Your task to perform on an android device: toggle show notifications on the lock screen Image 0: 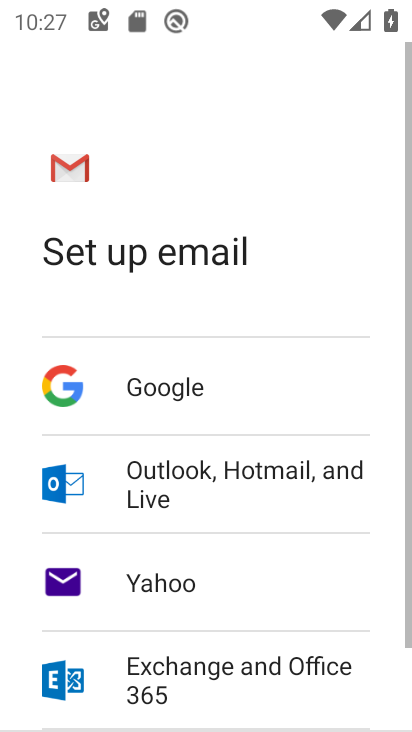
Step 0: press back button
Your task to perform on an android device: toggle show notifications on the lock screen Image 1: 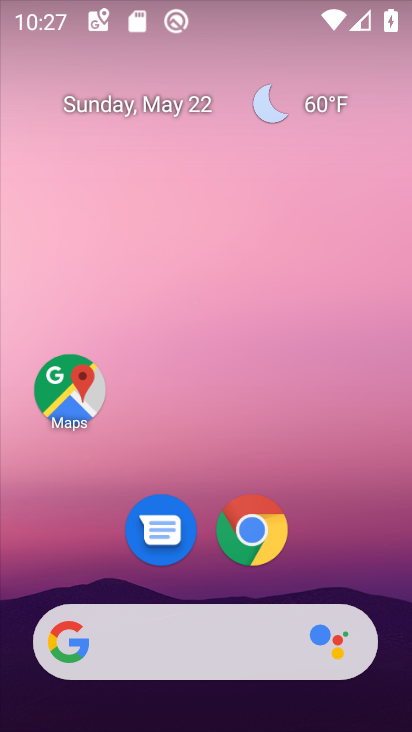
Step 1: drag from (367, 383) to (319, 75)
Your task to perform on an android device: toggle show notifications on the lock screen Image 2: 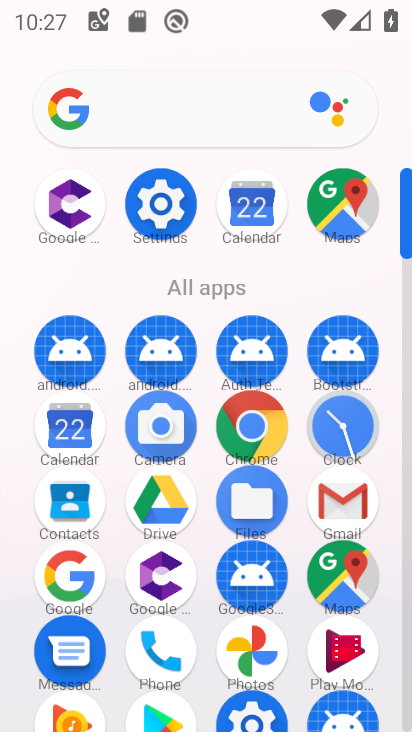
Step 2: click (163, 193)
Your task to perform on an android device: toggle show notifications on the lock screen Image 3: 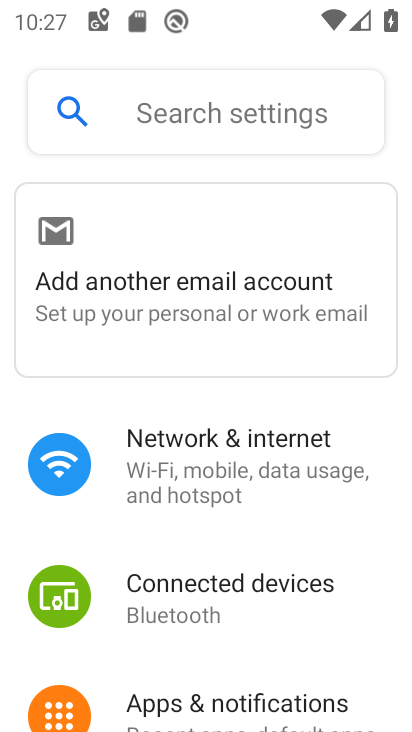
Step 3: drag from (292, 668) to (295, 438)
Your task to perform on an android device: toggle show notifications on the lock screen Image 4: 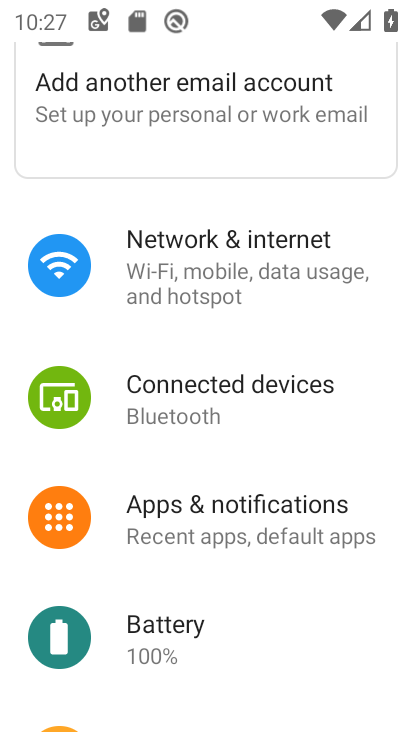
Step 4: click (211, 642)
Your task to perform on an android device: toggle show notifications on the lock screen Image 5: 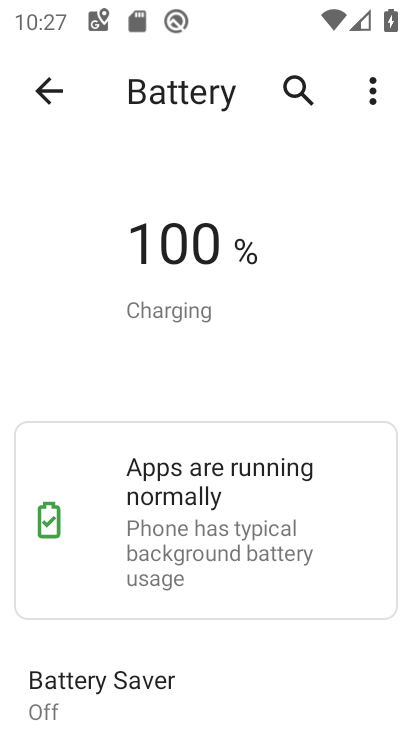
Step 5: click (28, 101)
Your task to perform on an android device: toggle show notifications on the lock screen Image 6: 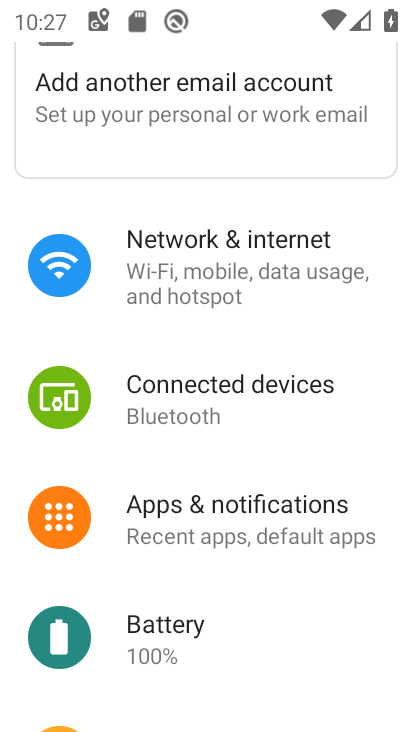
Step 6: click (235, 515)
Your task to perform on an android device: toggle show notifications on the lock screen Image 7: 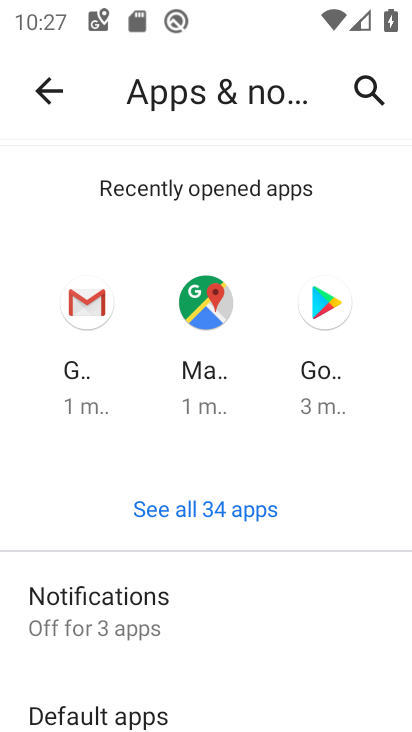
Step 7: drag from (243, 664) to (234, 296)
Your task to perform on an android device: toggle show notifications on the lock screen Image 8: 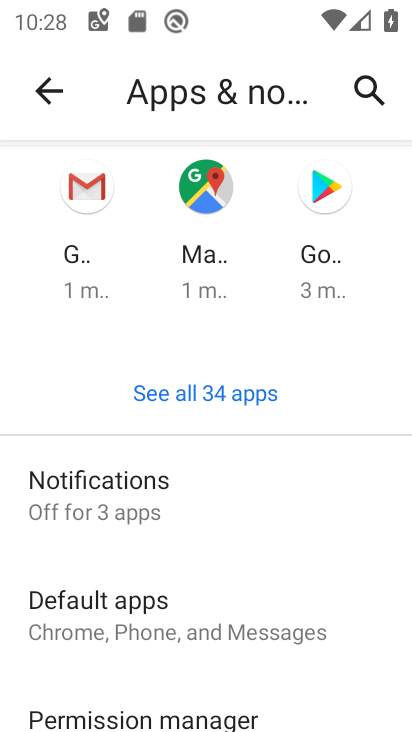
Step 8: click (103, 495)
Your task to perform on an android device: toggle show notifications on the lock screen Image 9: 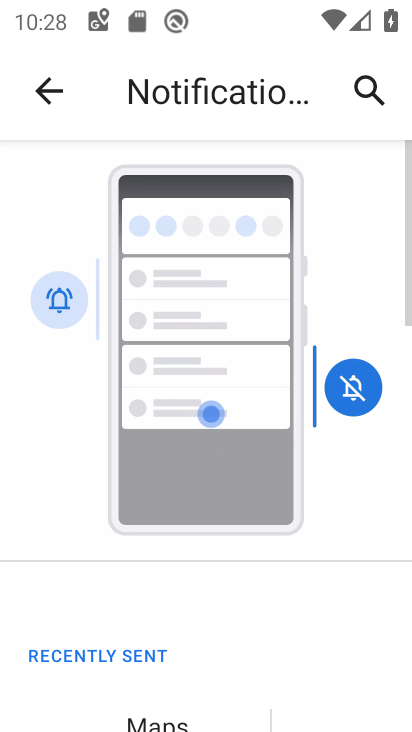
Step 9: drag from (334, 560) to (342, 207)
Your task to perform on an android device: toggle show notifications on the lock screen Image 10: 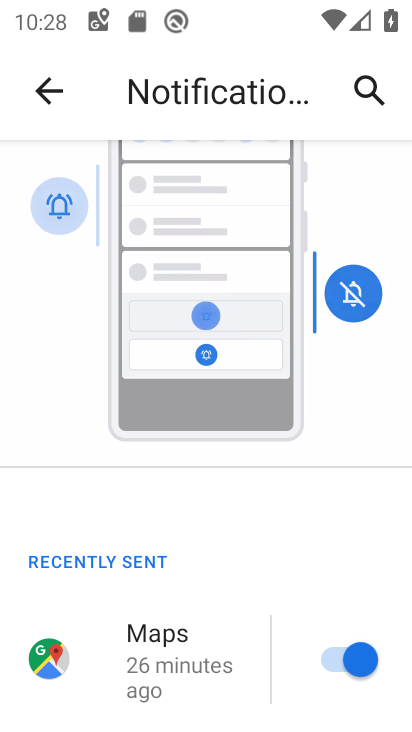
Step 10: drag from (249, 645) to (259, 324)
Your task to perform on an android device: toggle show notifications on the lock screen Image 11: 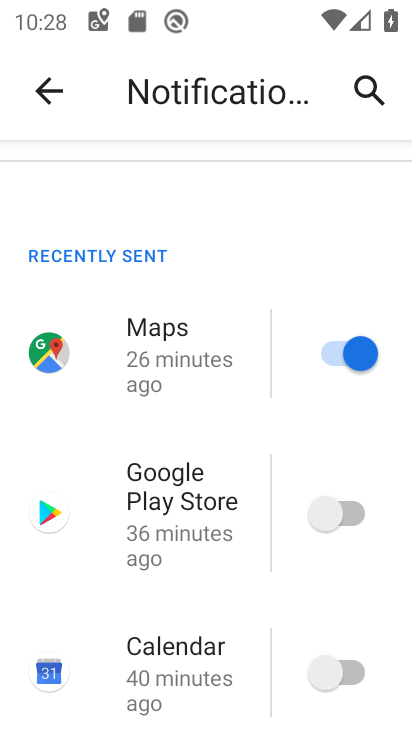
Step 11: drag from (283, 690) to (306, 351)
Your task to perform on an android device: toggle show notifications on the lock screen Image 12: 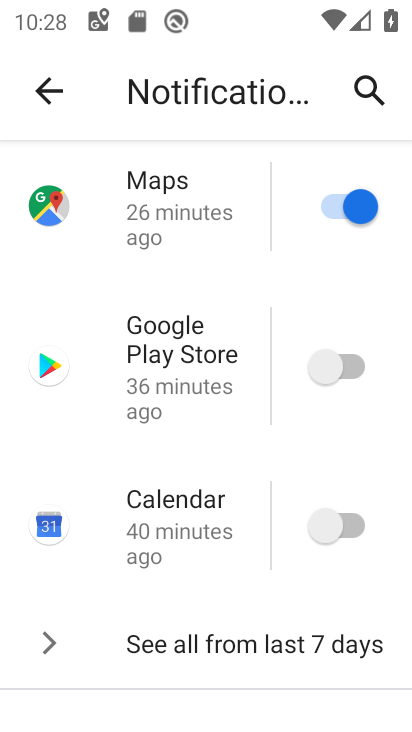
Step 12: drag from (253, 703) to (262, 342)
Your task to perform on an android device: toggle show notifications on the lock screen Image 13: 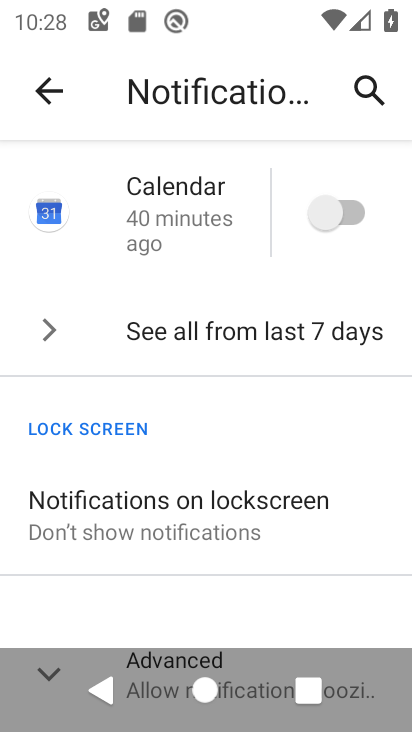
Step 13: drag from (265, 604) to (271, 321)
Your task to perform on an android device: toggle show notifications on the lock screen Image 14: 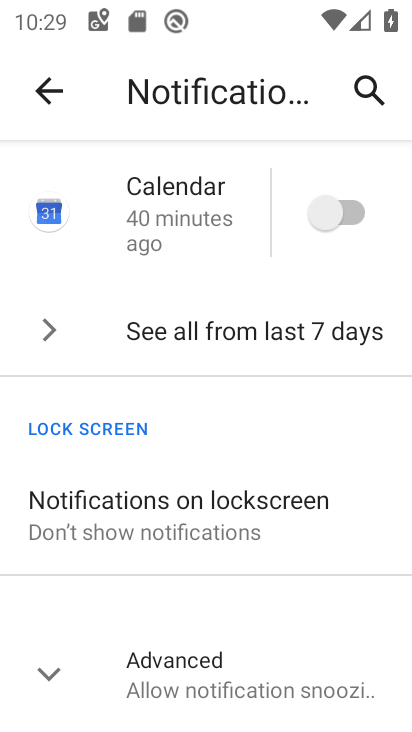
Step 14: click (187, 496)
Your task to perform on an android device: toggle show notifications on the lock screen Image 15: 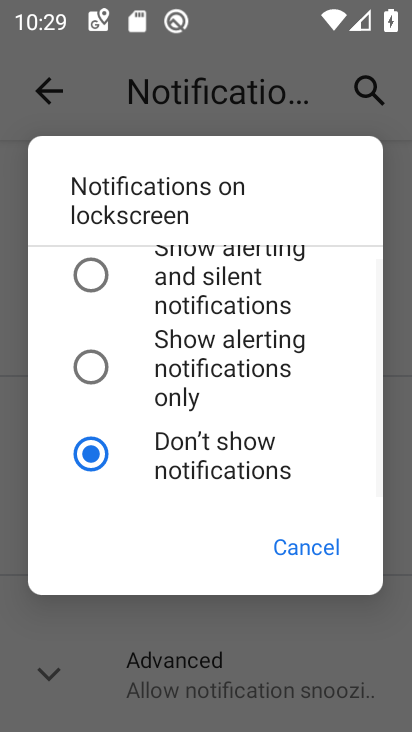
Step 15: click (82, 275)
Your task to perform on an android device: toggle show notifications on the lock screen Image 16: 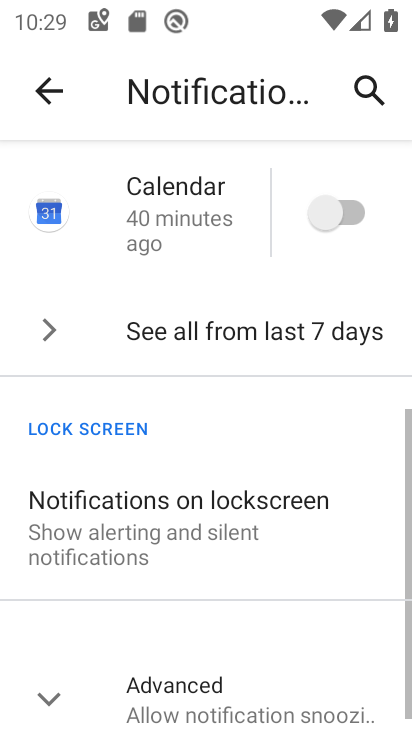
Step 16: task complete